Your task to perform on an android device: Go to Google maps Image 0: 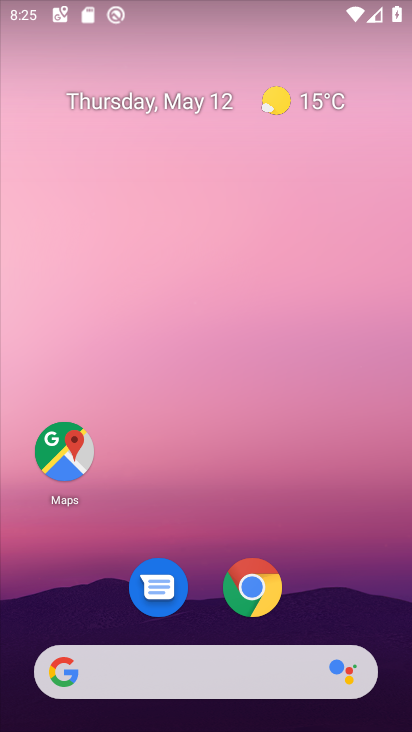
Step 0: drag from (386, 634) to (260, 39)
Your task to perform on an android device: Go to Google maps Image 1: 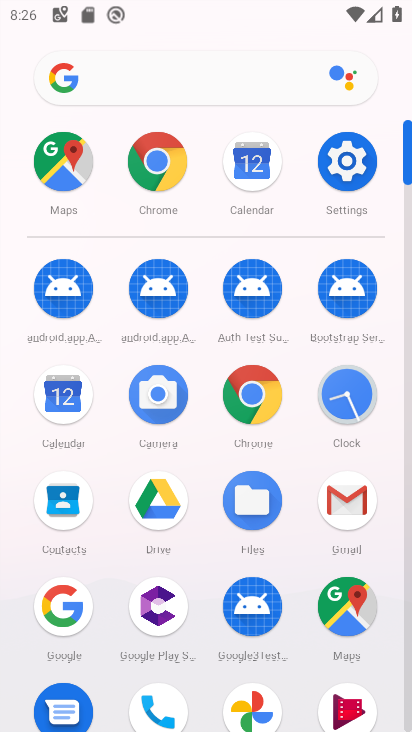
Step 1: click (349, 608)
Your task to perform on an android device: Go to Google maps Image 2: 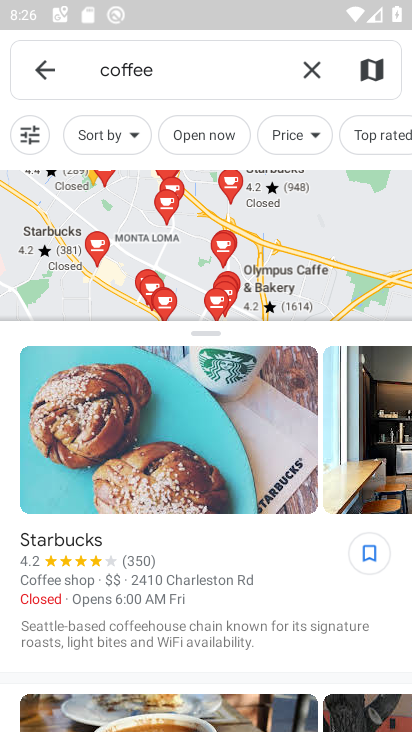
Step 2: click (315, 70)
Your task to perform on an android device: Go to Google maps Image 3: 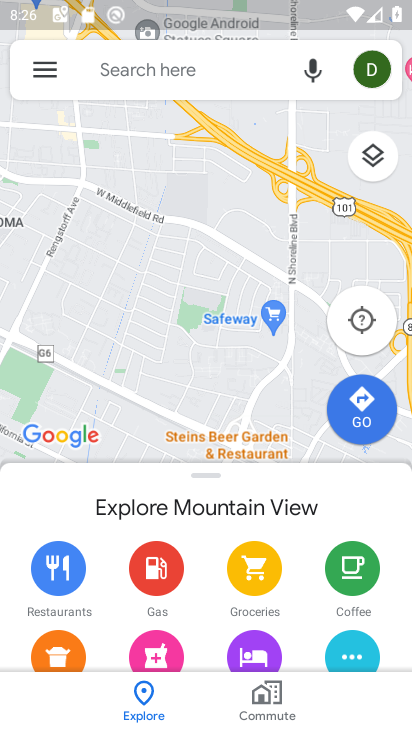
Step 3: task complete